Your task to perform on an android device: open the mobile data screen to see how much data has been used Image 0: 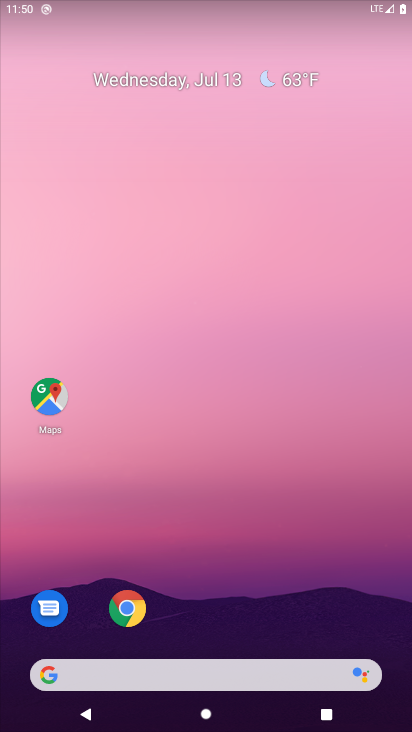
Step 0: click (259, 40)
Your task to perform on an android device: open the mobile data screen to see how much data has been used Image 1: 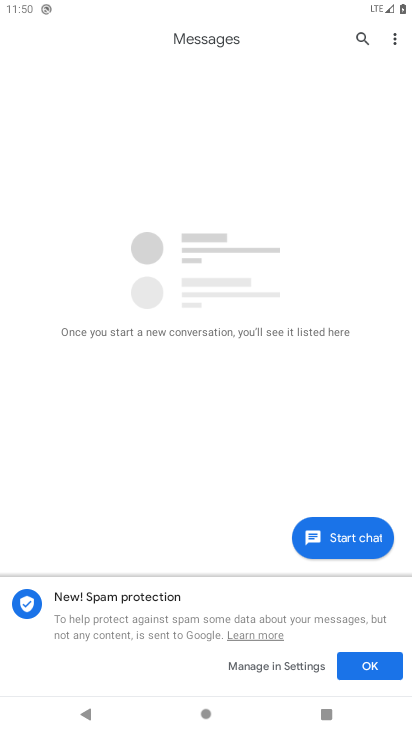
Step 1: press home button
Your task to perform on an android device: open the mobile data screen to see how much data has been used Image 2: 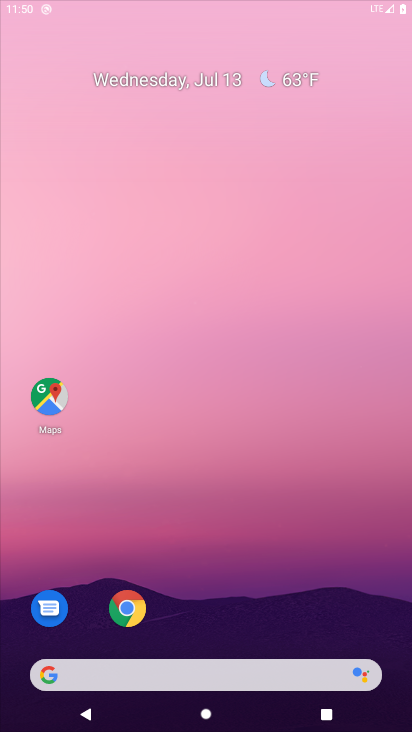
Step 2: drag from (251, 7) to (19, 456)
Your task to perform on an android device: open the mobile data screen to see how much data has been used Image 3: 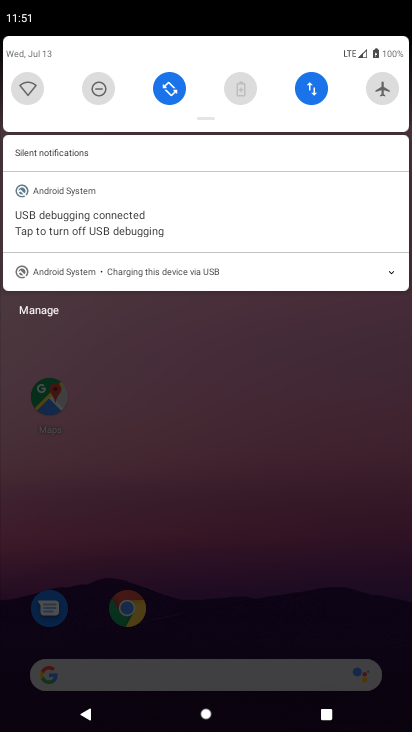
Step 3: click (319, 99)
Your task to perform on an android device: open the mobile data screen to see how much data has been used Image 4: 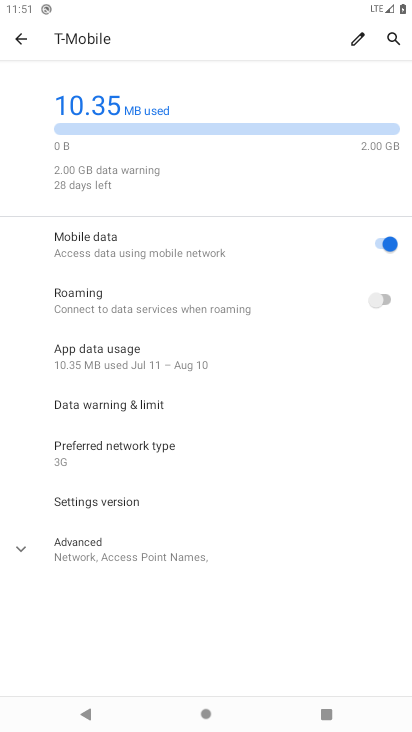
Step 4: task complete